Your task to perform on an android device: Open eBay Image 0: 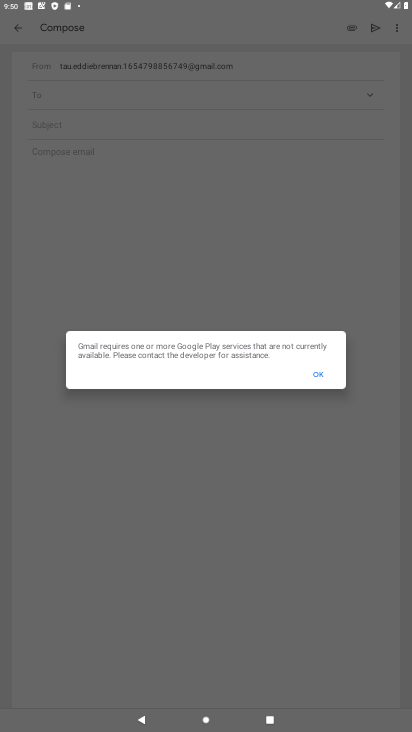
Step 0: click (320, 376)
Your task to perform on an android device: Open eBay Image 1: 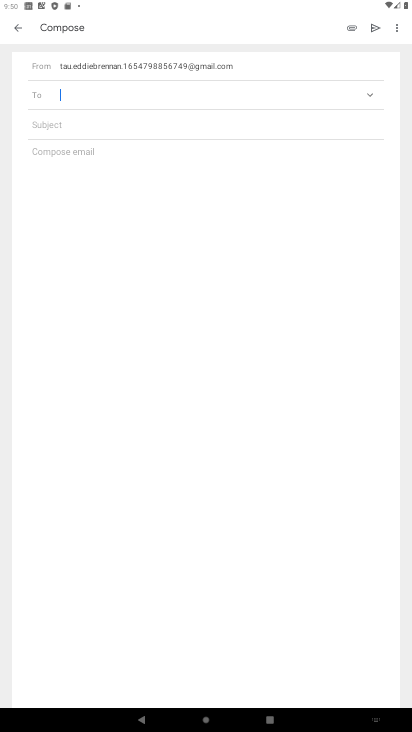
Step 1: click (320, 376)
Your task to perform on an android device: Open eBay Image 2: 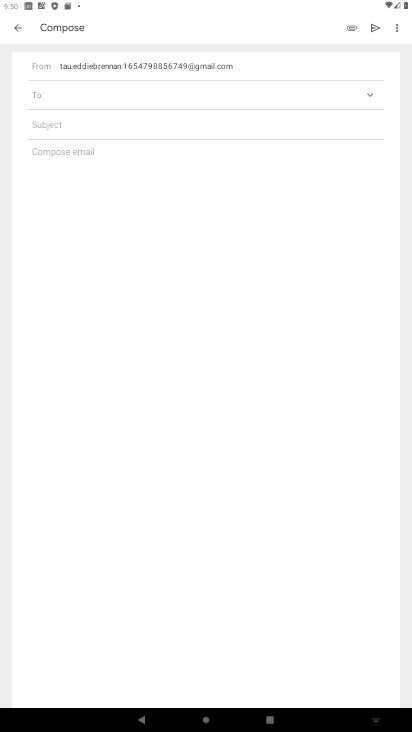
Step 2: press home button
Your task to perform on an android device: Open eBay Image 3: 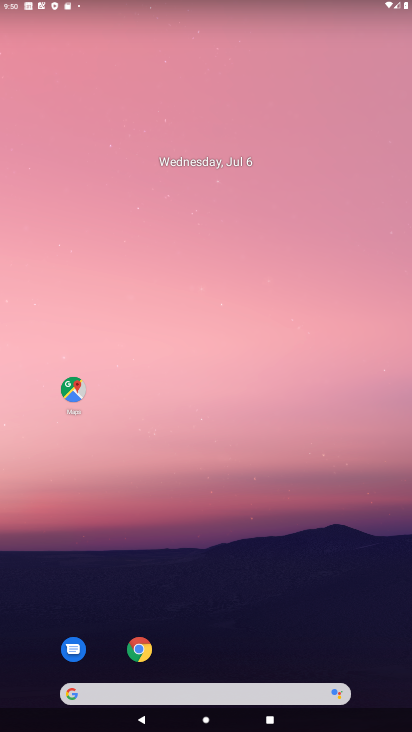
Step 3: click (138, 656)
Your task to perform on an android device: Open eBay Image 4: 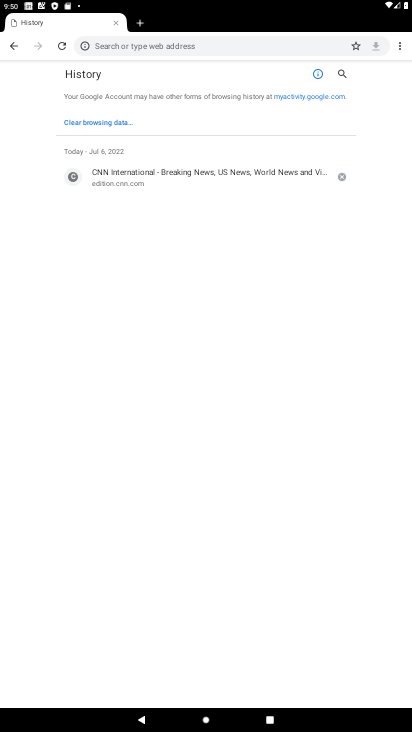
Step 4: click (179, 39)
Your task to perform on an android device: Open eBay Image 5: 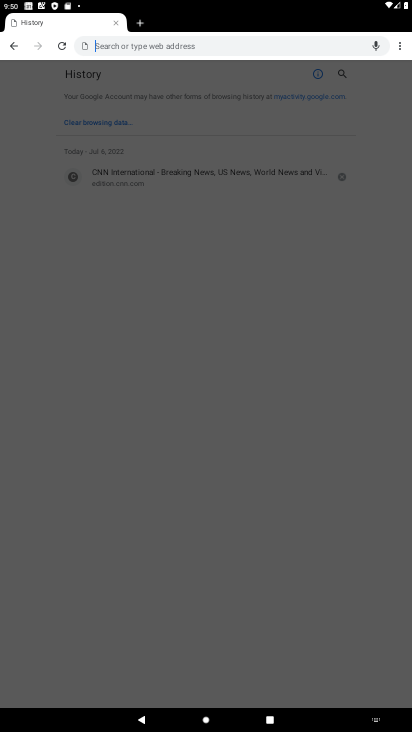
Step 5: type "ebay"
Your task to perform on an android device: Open eBay Image 6: 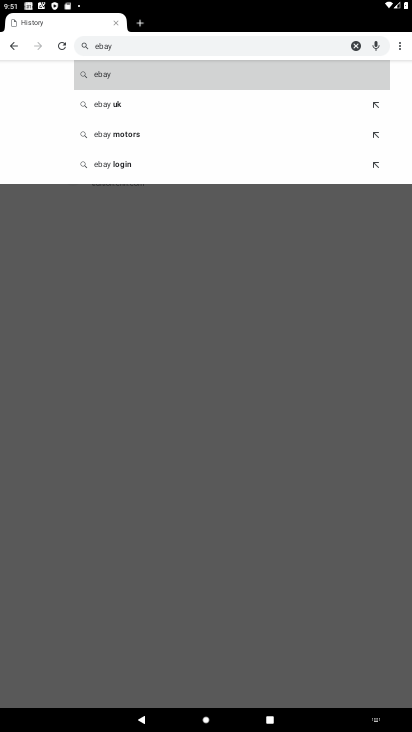
Step 6: click (133, 74)
Your task to perform on an android device: Open eBay Image 7: 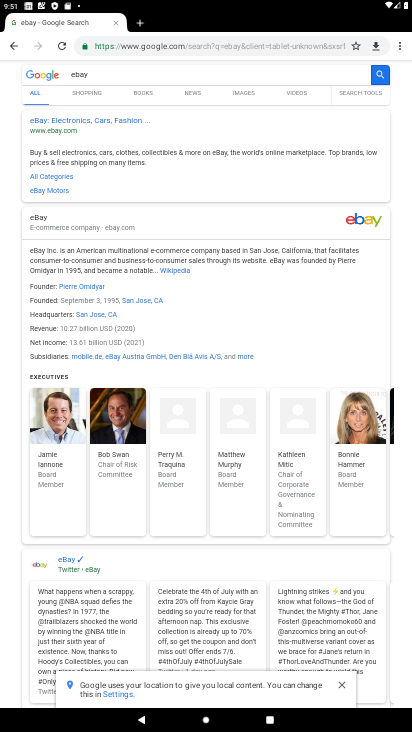
Step 7: click (60, 123)
Your task to perform on an android device: Open eBay Image 8: 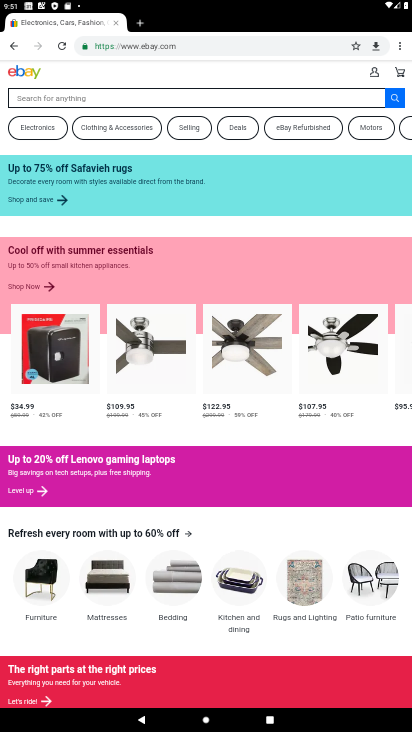
Step 8: task complete